Your task to perform on an android device: turn off wifi Image 0: 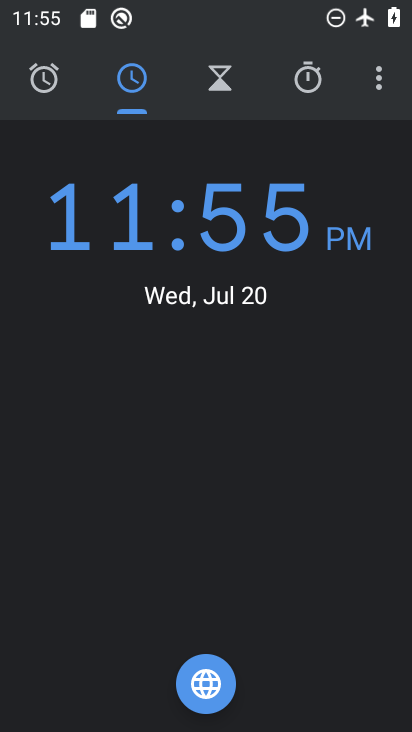
Step 0: press home button
Your task to perform on an android device: turn off wifi Image 1: 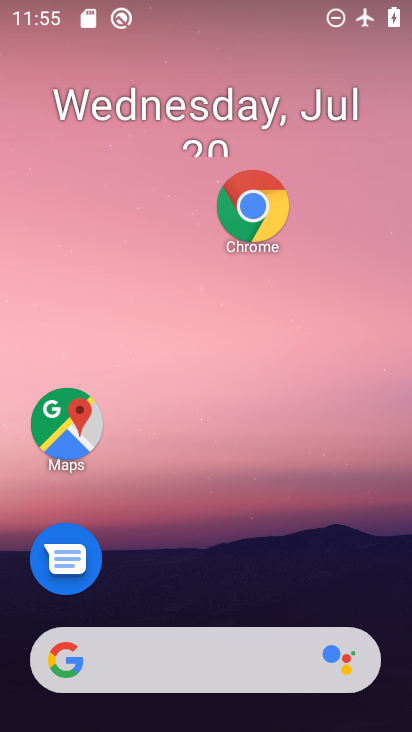
Step 1: drag from (281, 631) to (334, 130)
Your task to perform on an android device: turn off wifi Image 2: 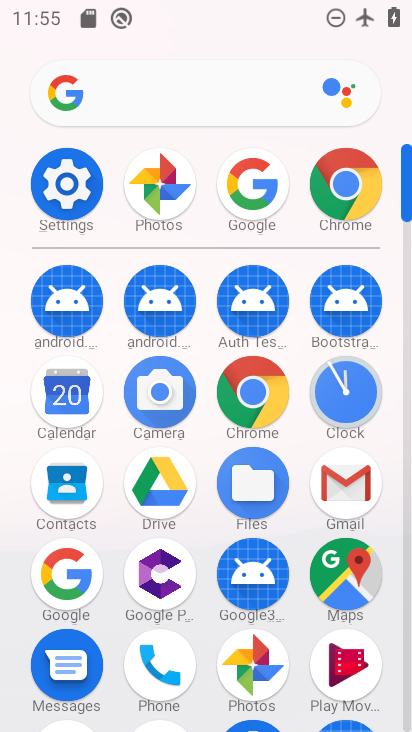
Step 2: click (50, 203)
Your task to perform on an android device: turn off wifi Image 3: 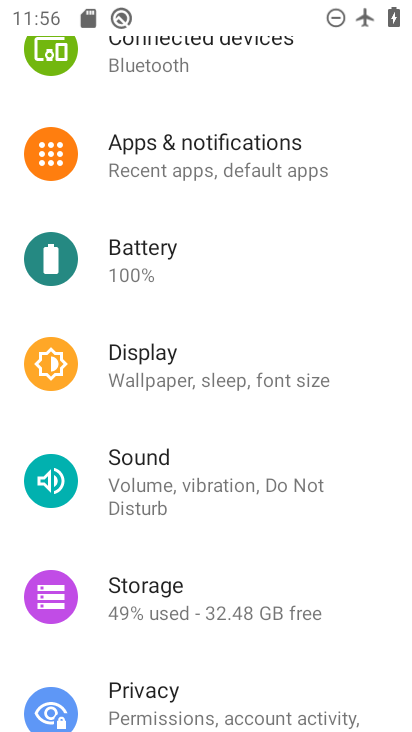
Step 3: drag from (217, 303) to (201, 666)
Your task to perform on an android device: turn off wifi Image 4: 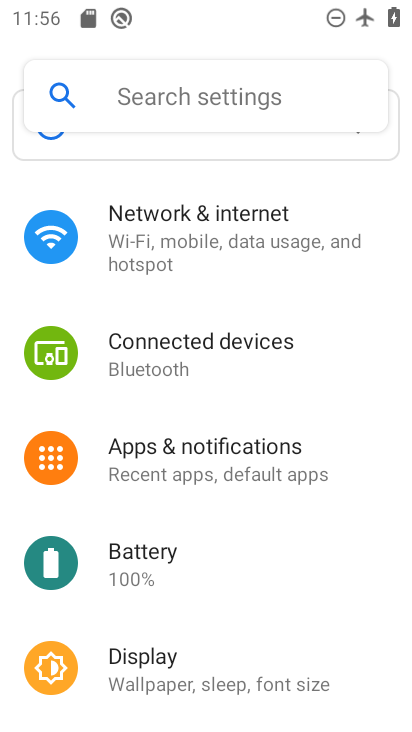
Step 4: drag from (195, 269) to (160, 517)
Your task to perform on an android device: turn off wifi Image 5: 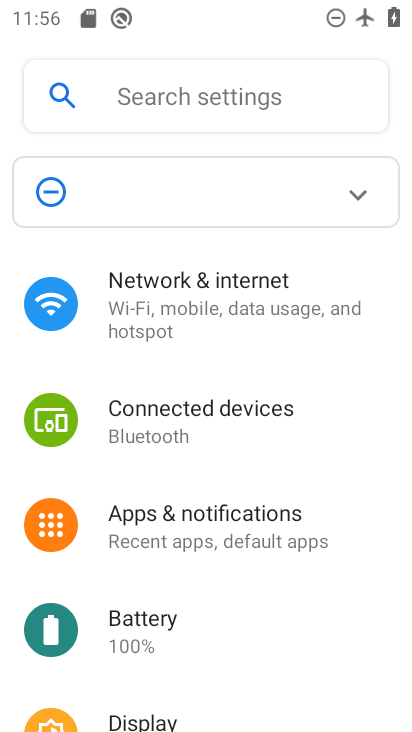
Step 5: click (234, 313)
Your task to perform on an android device: turn off wifi Image 6: 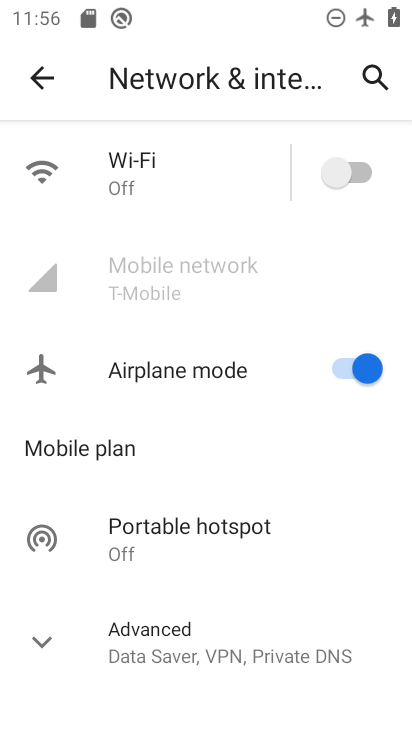
Step 6: task complete